Your task to perform on an android device: Check the news Image 0: 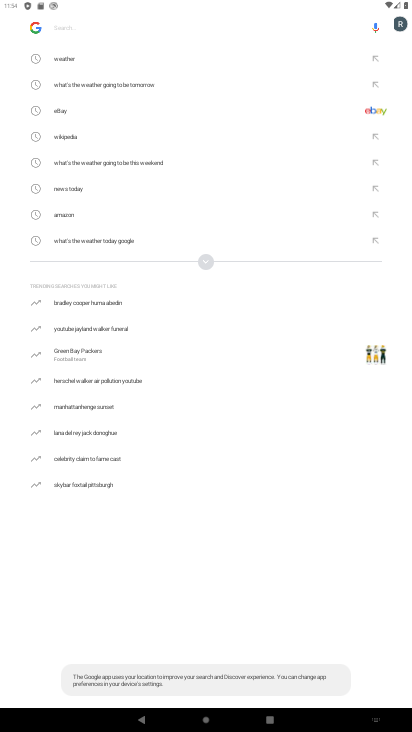
Step 0: press home button
Your task to perform on an android device: Check the news Image 1: 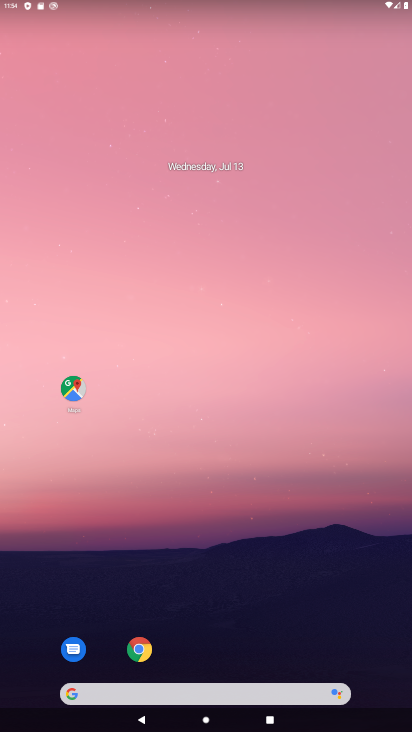
Step 1: click (173, 692)
Your task to perform on an android device: Check the news Image 2: 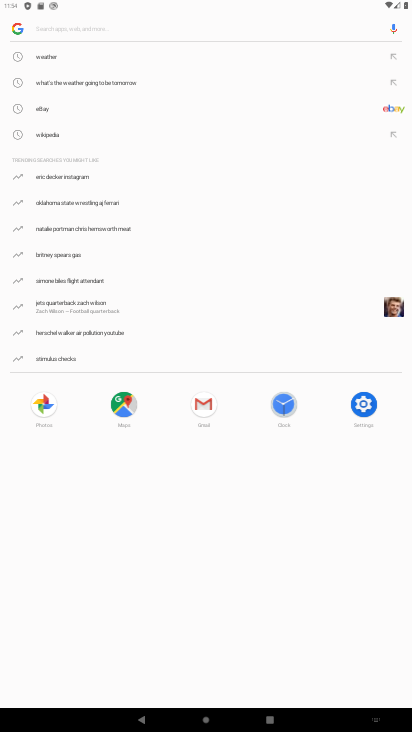
Step 2: type "news"
Your task to perform on an android device: Check the news Image 3: 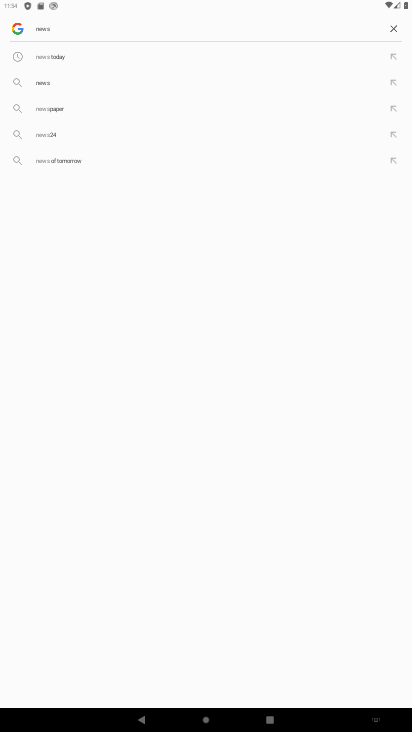
Step 3: click (77, 81)
Your task to perform on an android device: Check the news Image 4: 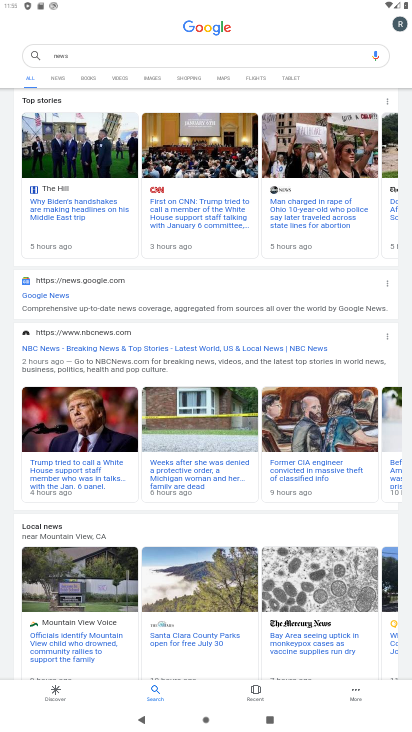
Step 4: task complete